Your task to perform on an android device: find which apps use the phone's location Image 0: 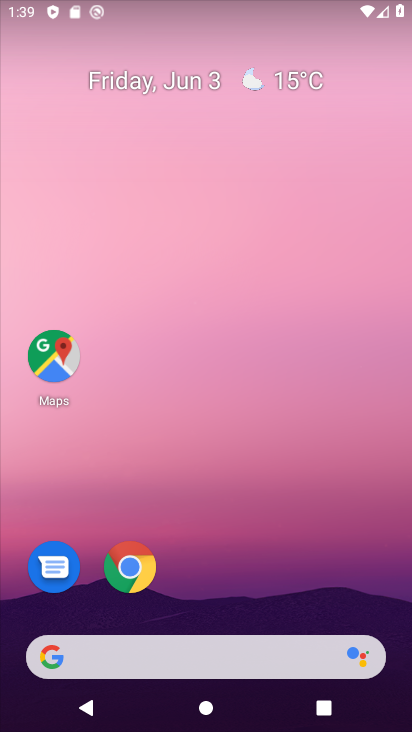
Step 0: click (341, 78)
Your task to perform on an android device: find which apps use the phone's location Image 1: 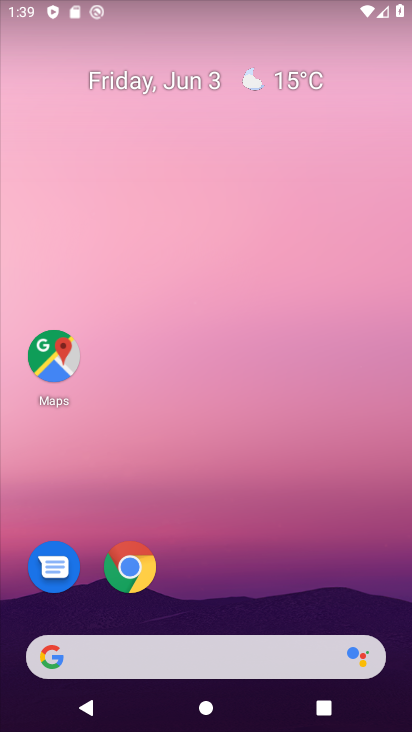
Step 1: drag from (205, 580) to (310, 122)
Your task to perform on an android device: find which apps use the phone's location Image 2: 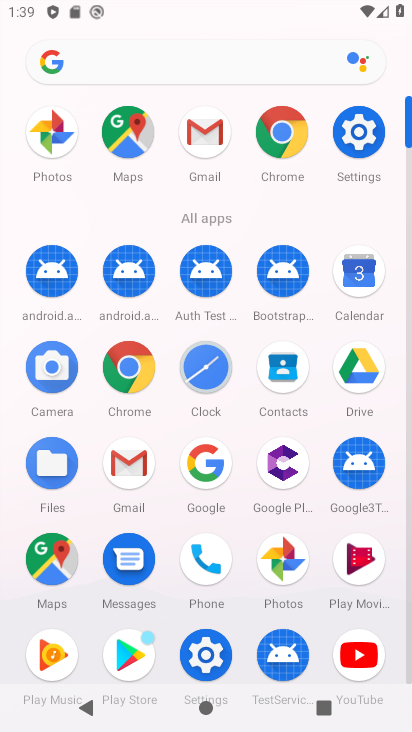
Step 2: drag from (114, 600) to (186, 359)
Your task to perform on an android device: find which apps use the phone's location Image 3: 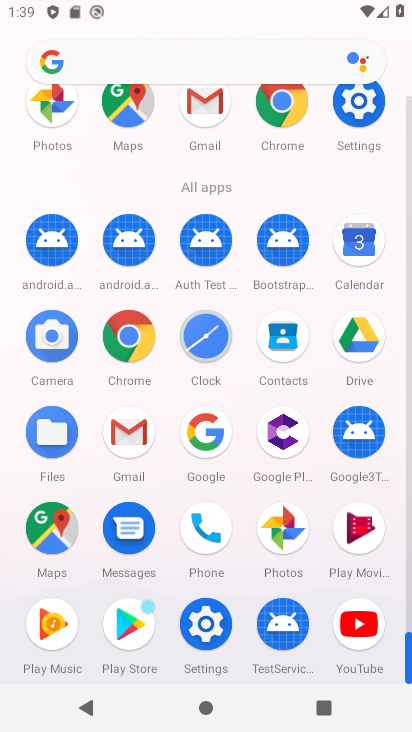
Step 3: click (198, 635)
Your task to perform on an android device: find which apps use the phone's location Image 4: 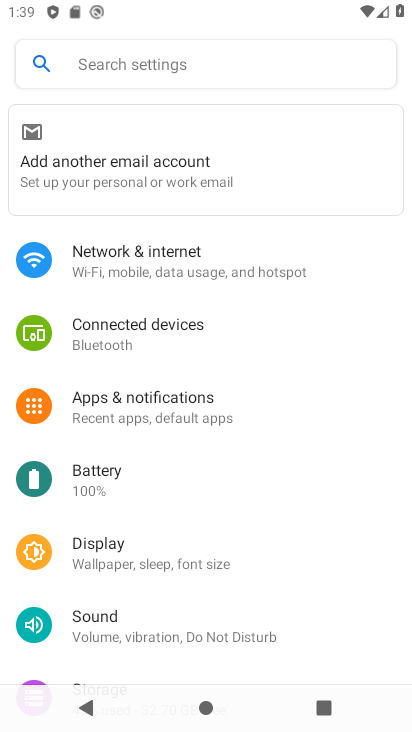
Step 4: drag from (134, 638) to (198, 386)
Your task to perform on an android device: find which apps use the phone's location Image 5: 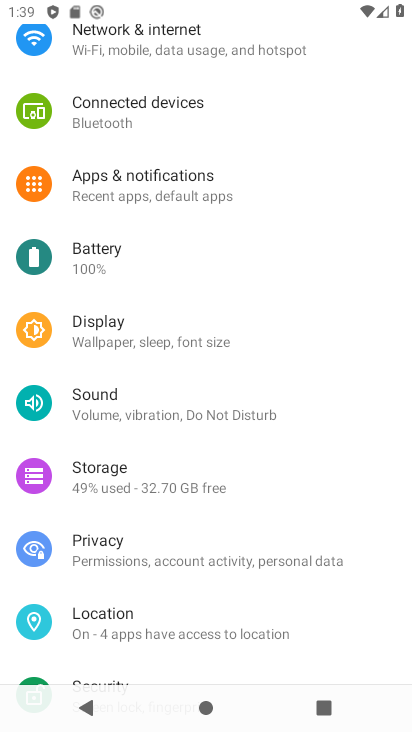
Step 5: drag from (149, 658) to (165, 589)
Your task to perform on an android device: find which apps use the phone's location Image 6: 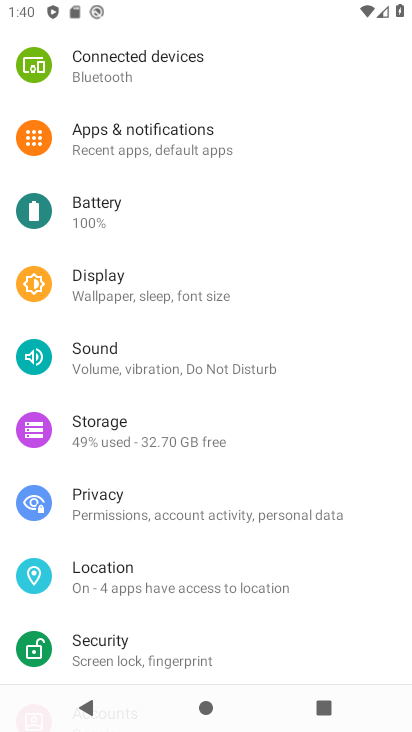
Step 6: click (143, 591)
Your task to perform on an android device: find which apps use the phone's location Image 7: 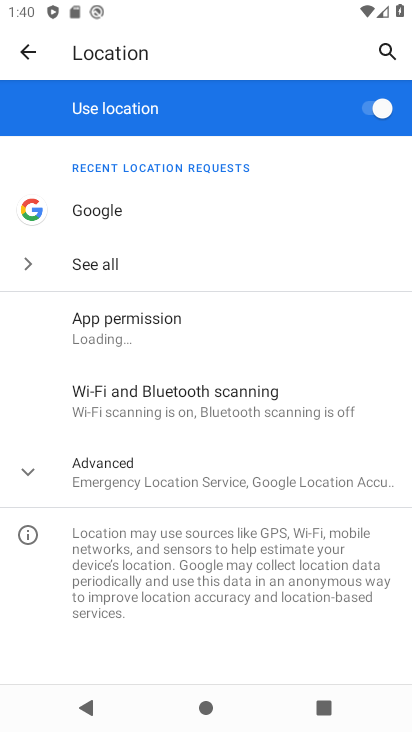
Step 7: click (197, 329)
Your task to perform on an android device: find which apps use the phone's location Image 8: 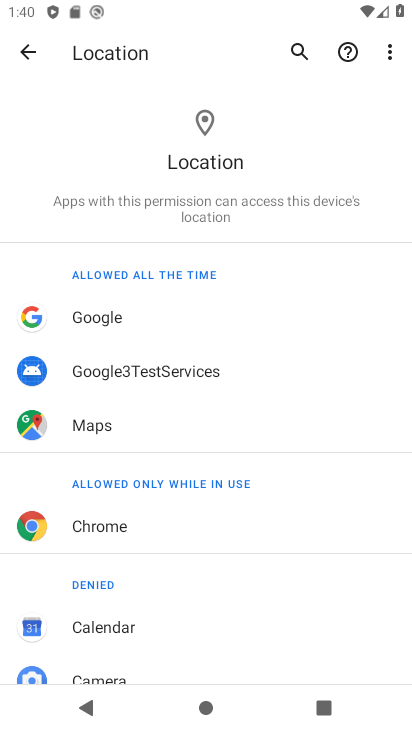
Step 8: task complete